Your task to perform on an android device: Open display settings Image 0: 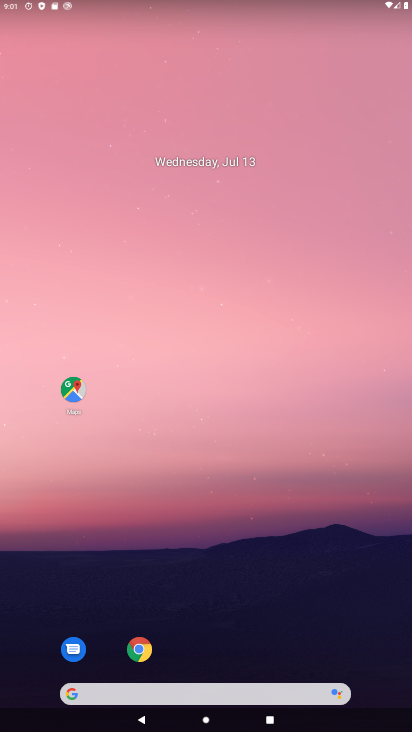
Step 0: drag from (308, 629) to (311, 10)
Your task to perform on an android device: Open display settings Image 1: 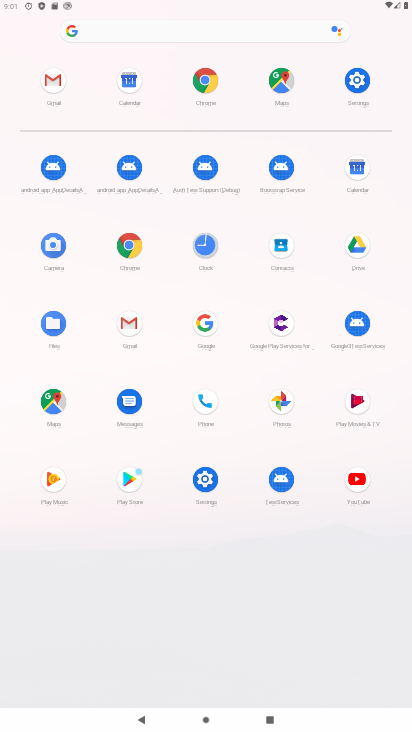
Step 1: click (360, 80)
Your task to perform on an android device: Open display settings Image 2: 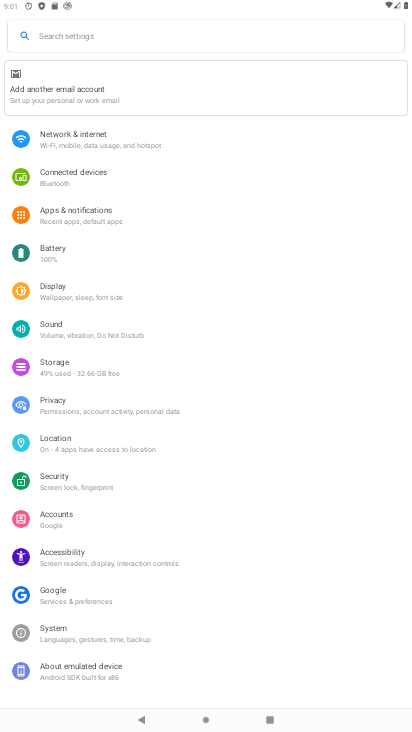
Step 2: click (122, 288)
Your task to perform on an android device: Open display settings Image 3: 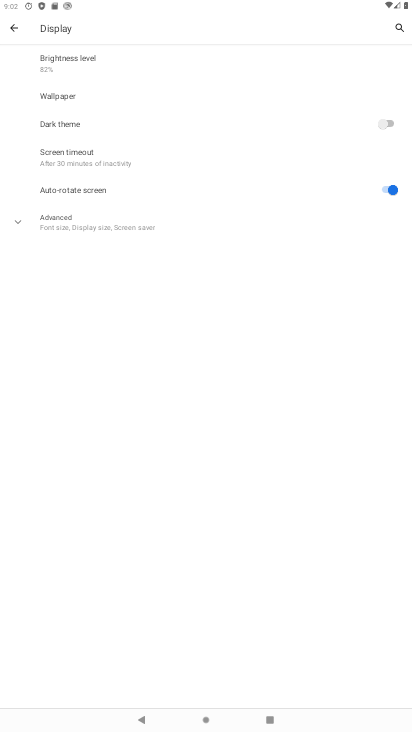
Step 3: task complete